Your task to perform on an android device: Open Google Maps and go to "Timeline" Image 0: 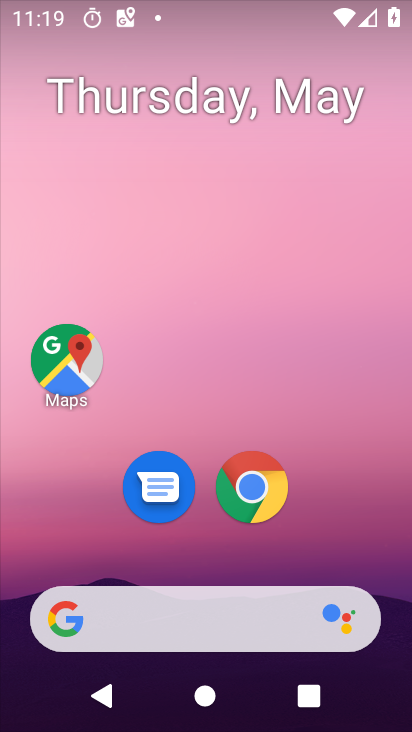
Step 0: click (73, 358)
Your task to perform on an android device: Open Google Maps and go to "Timeline" Image 1: 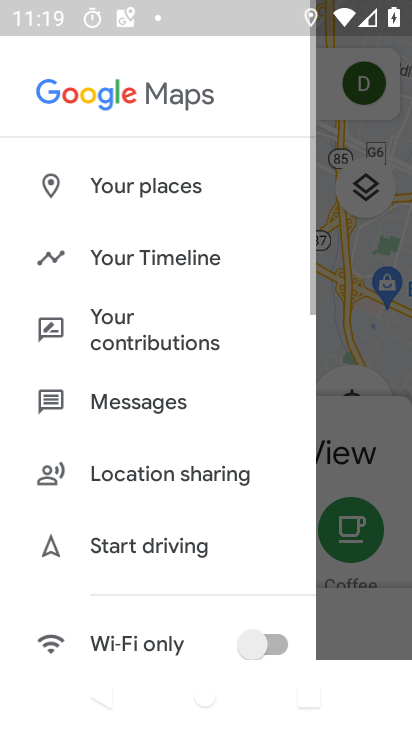
Step 1: click (175, 256)
Your task to perform on an android device: Open Google Maps and go to "Timeline" Image 2: 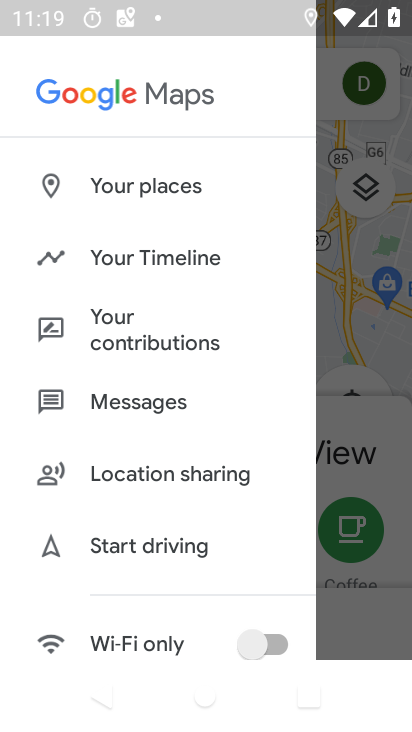
Step 2: click (175, 256)
Your task to perform on an android device: Open Google Maps and go to "Timeline" Image 3: 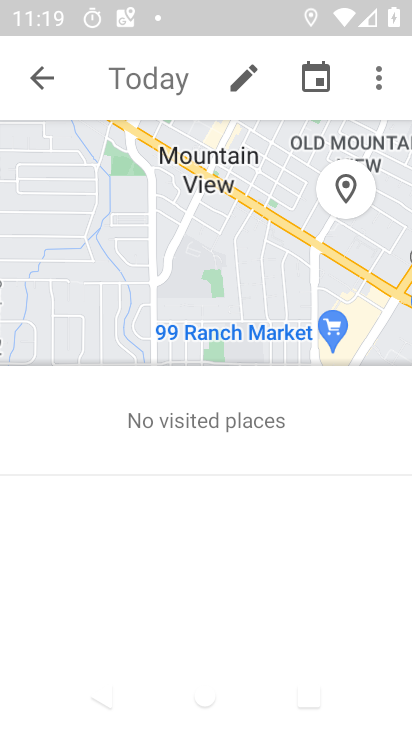
Step 3: task complete